Your task to perform on an android device: turn on notifications settings in the gmail app Image 0: 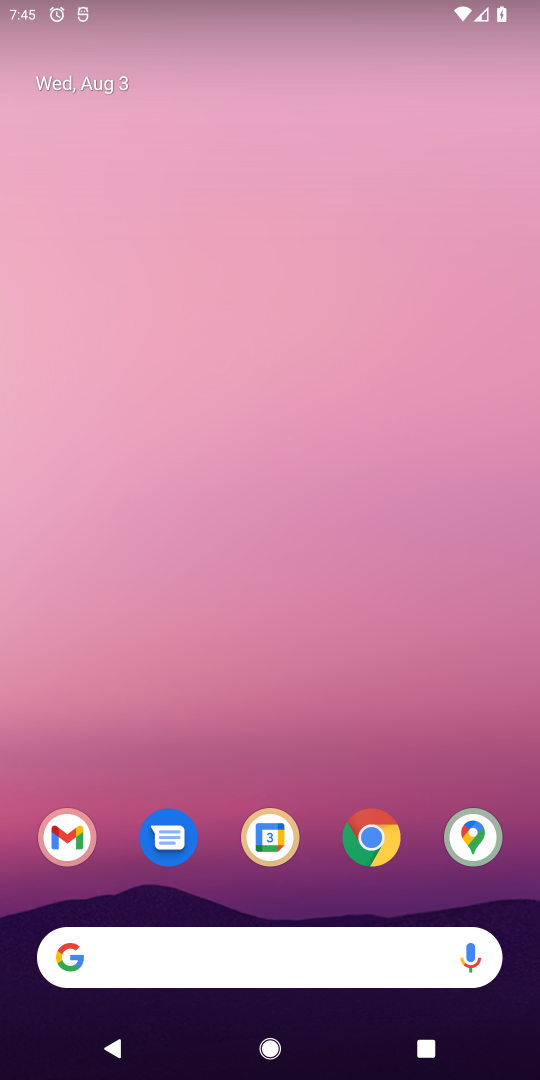
Step 0: press home button
Your task to perform on an android device: turn on notifications settings in the gmail app Image 1: 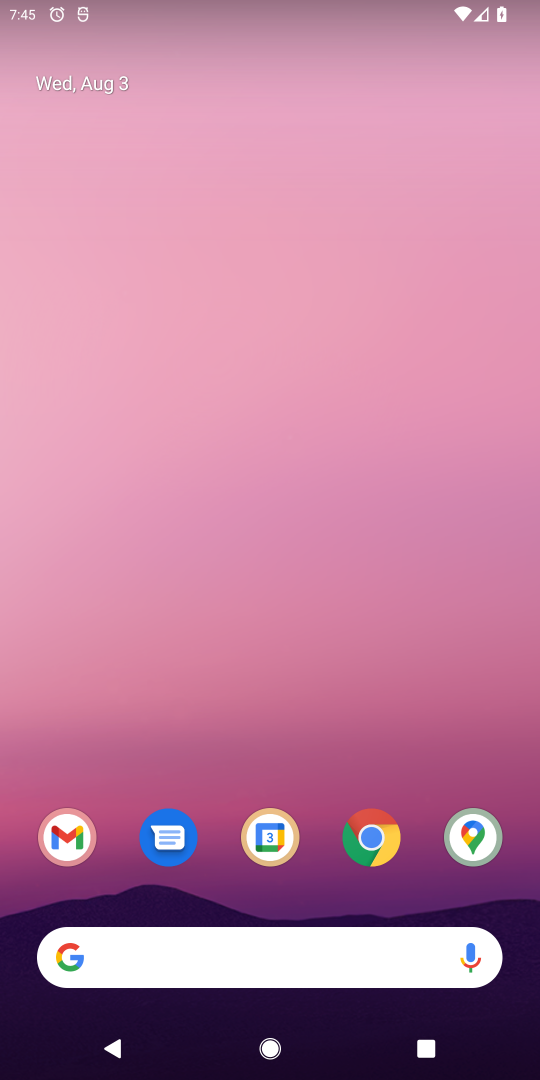
Step 1: click (61, 831)
Your task to perform on an android device: turn on notifications settings in the gmail app Image 2: 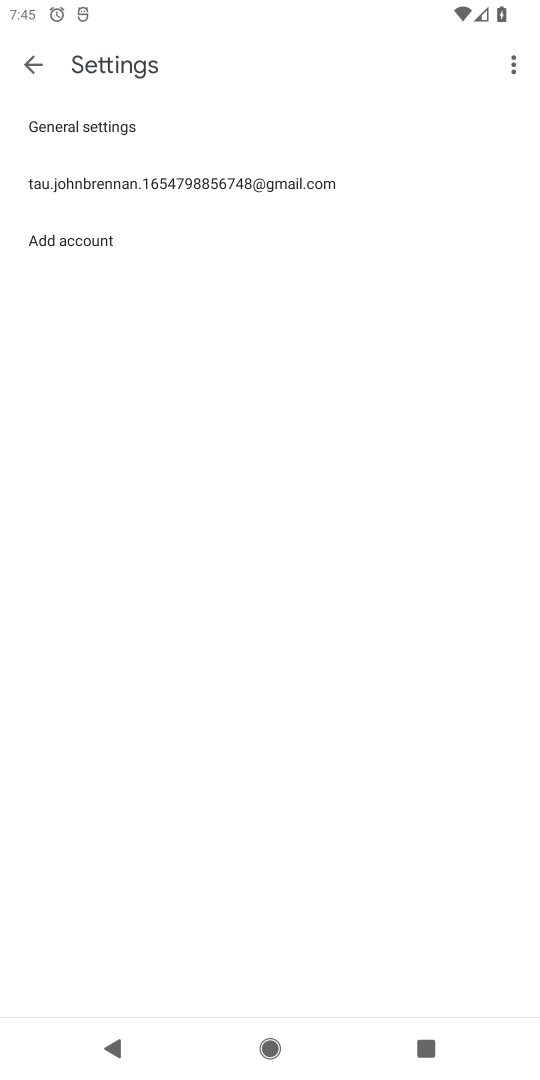
Step 2: click (136, 186)
Your task to perform on an android device: turn on notifications settings in the gmail app Image 3: 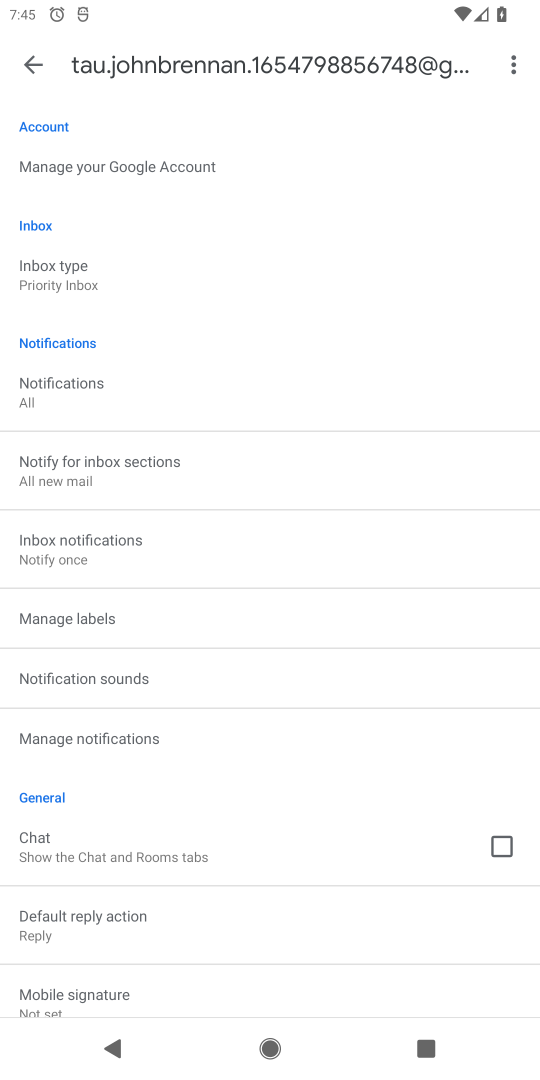
Step 3: click (90, 746)
Your task to perform on an android device: turn on notifications settings in the gmail app Image 4: 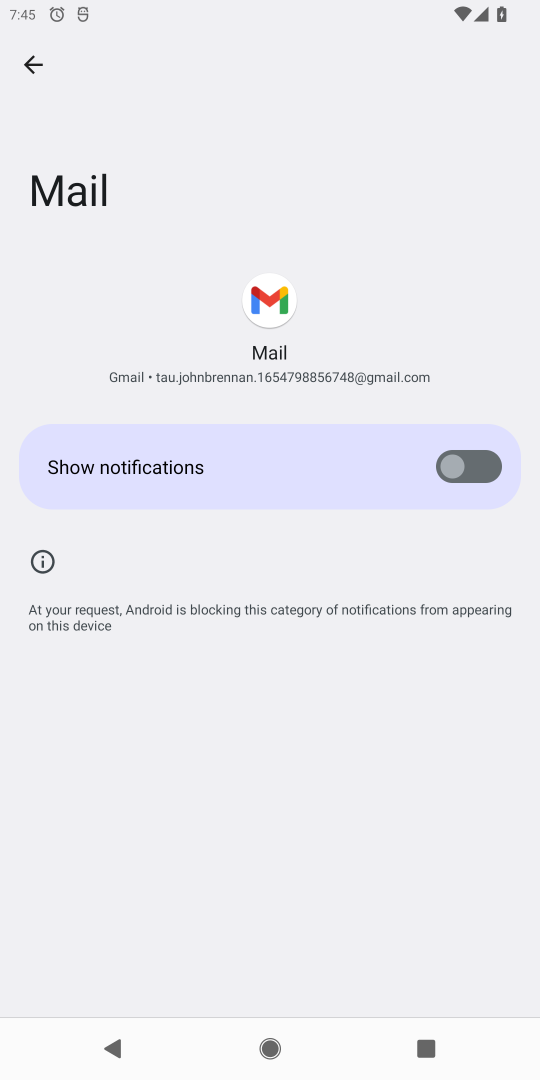
Step 4: click (454, 474)
Your task to perform on an android device: turn on notifications settings in the gmail app Image 5: 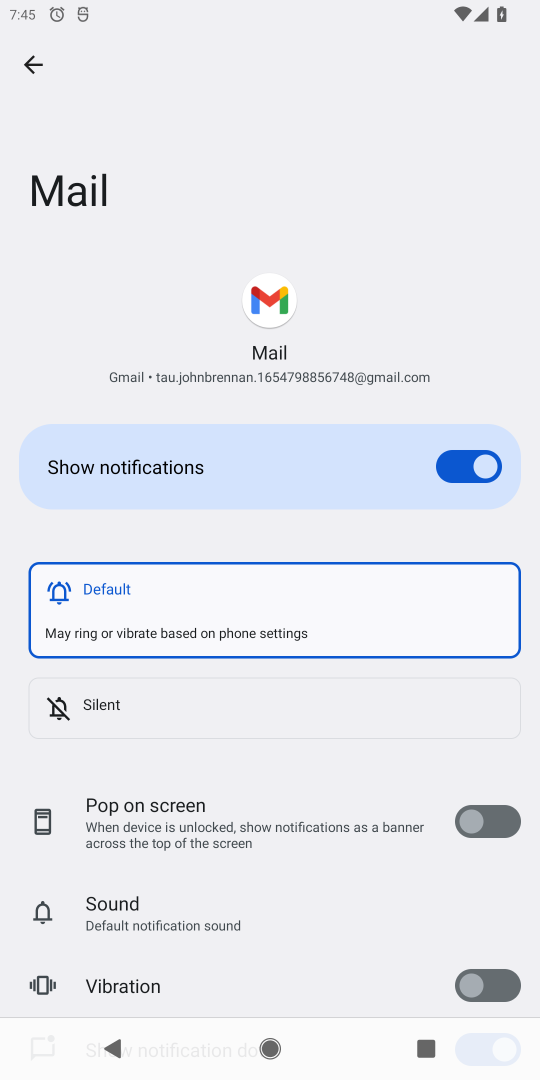
Step 5: task complete